Your task to perform on an android device: Open Youtube and go to "Your channel" Image 0: 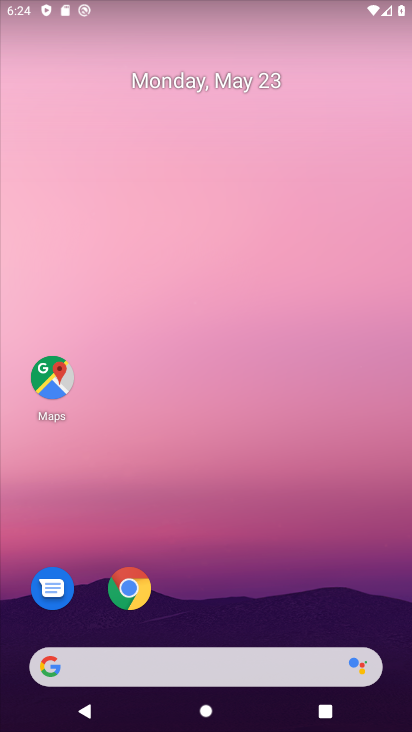
Step 0: drag from (214, 630) to (322, 130)
Your task to perform on an android device: Open Youtube and go to "Your channel" Image 1: 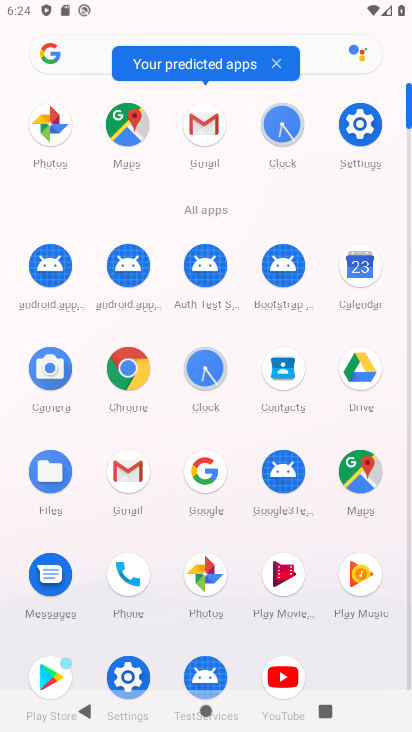
Step 1: click (277, 674)
Your task to perform on an android device: Open Youtube and go to "Your channel" Image 2: 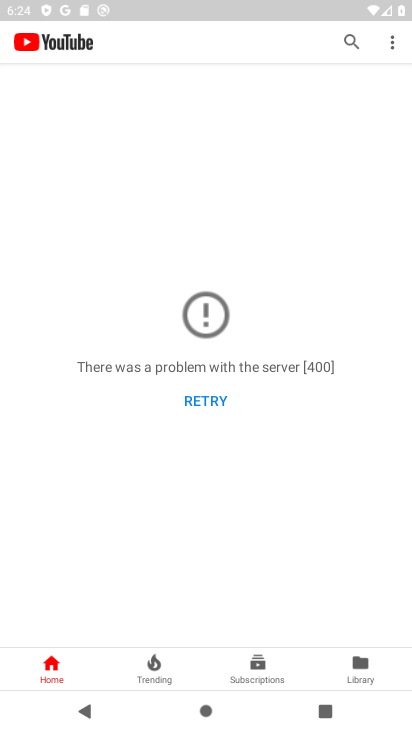
Step 2: task complete